Your task to perform on an android device: turn vacation reply on in the gmail app Image 0: 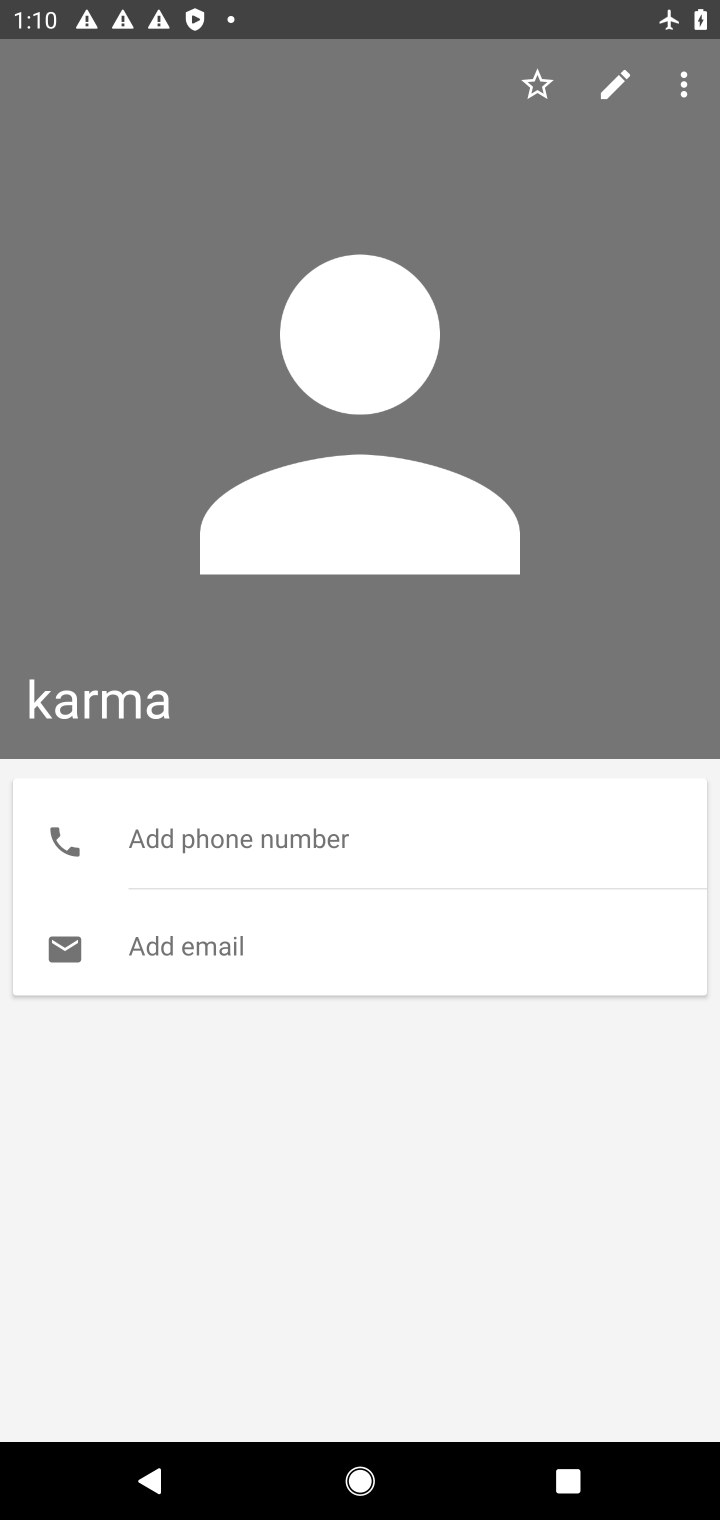
Step 0: press home button
Your task to perform on an android device: turn vacation reply on in the gmail app Image 1: 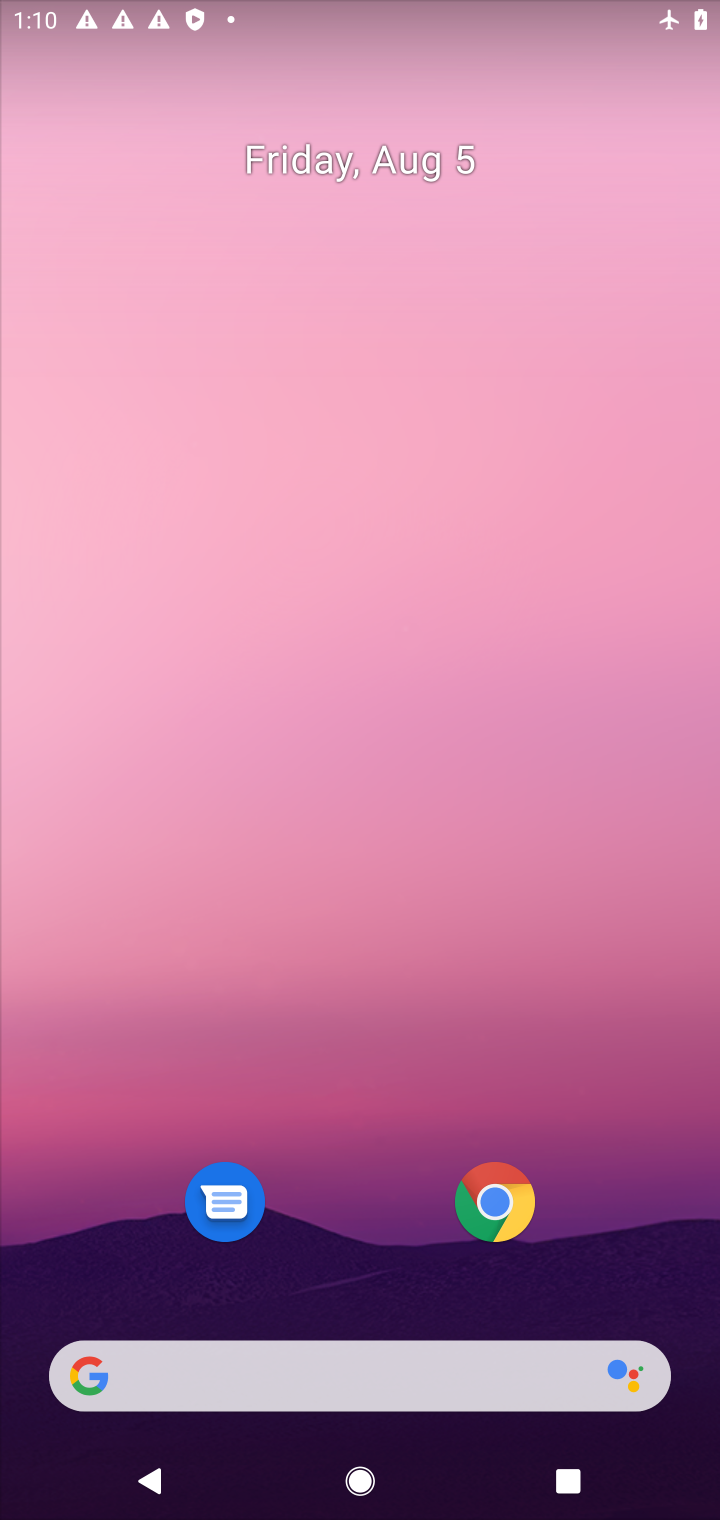
Step 1: drag from (389, 1162) to (387, 305)
Your task to perform on an android device: turn vacation reply on in the gmail app Image 2: 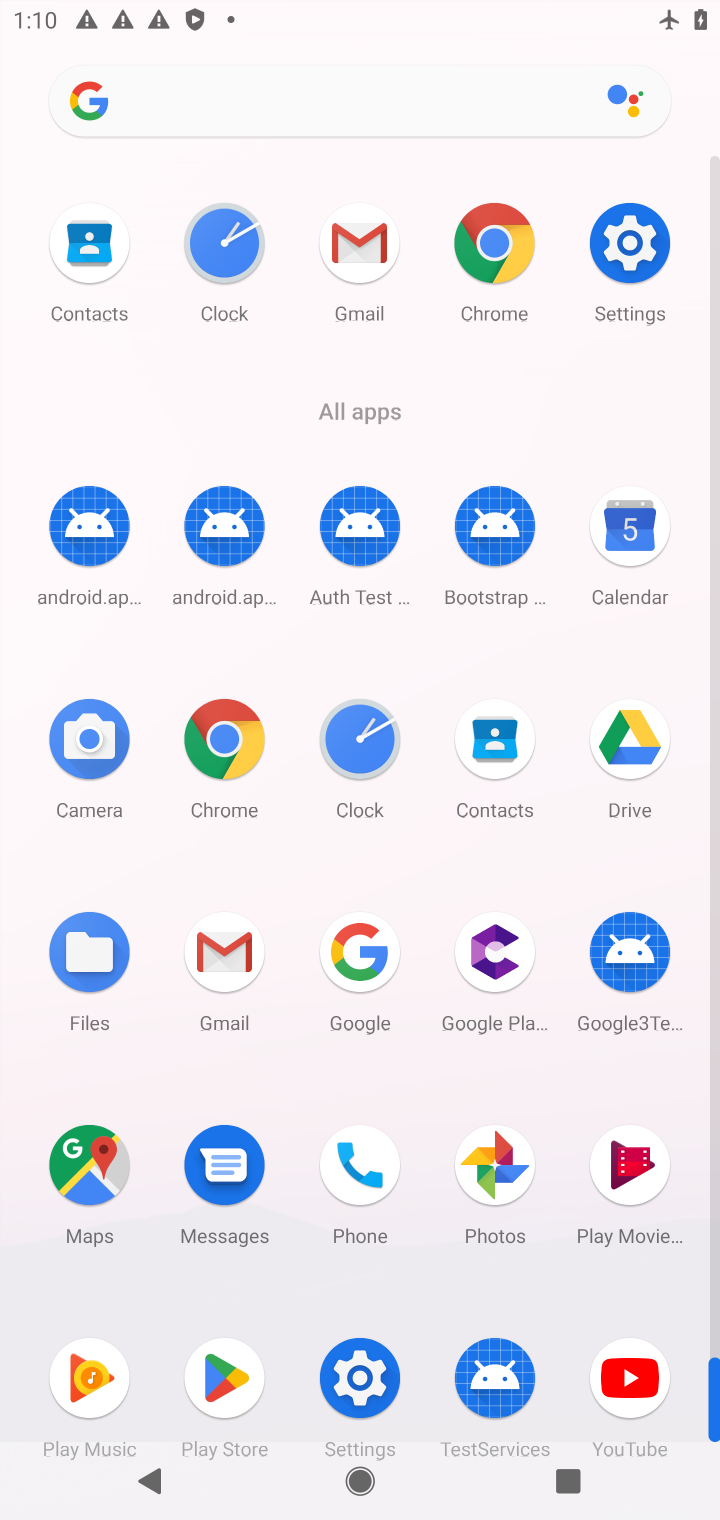
Step 2: click (217, 932)
Your task to perform on an android device: turn vacation reply on in the gmail app Image 3: 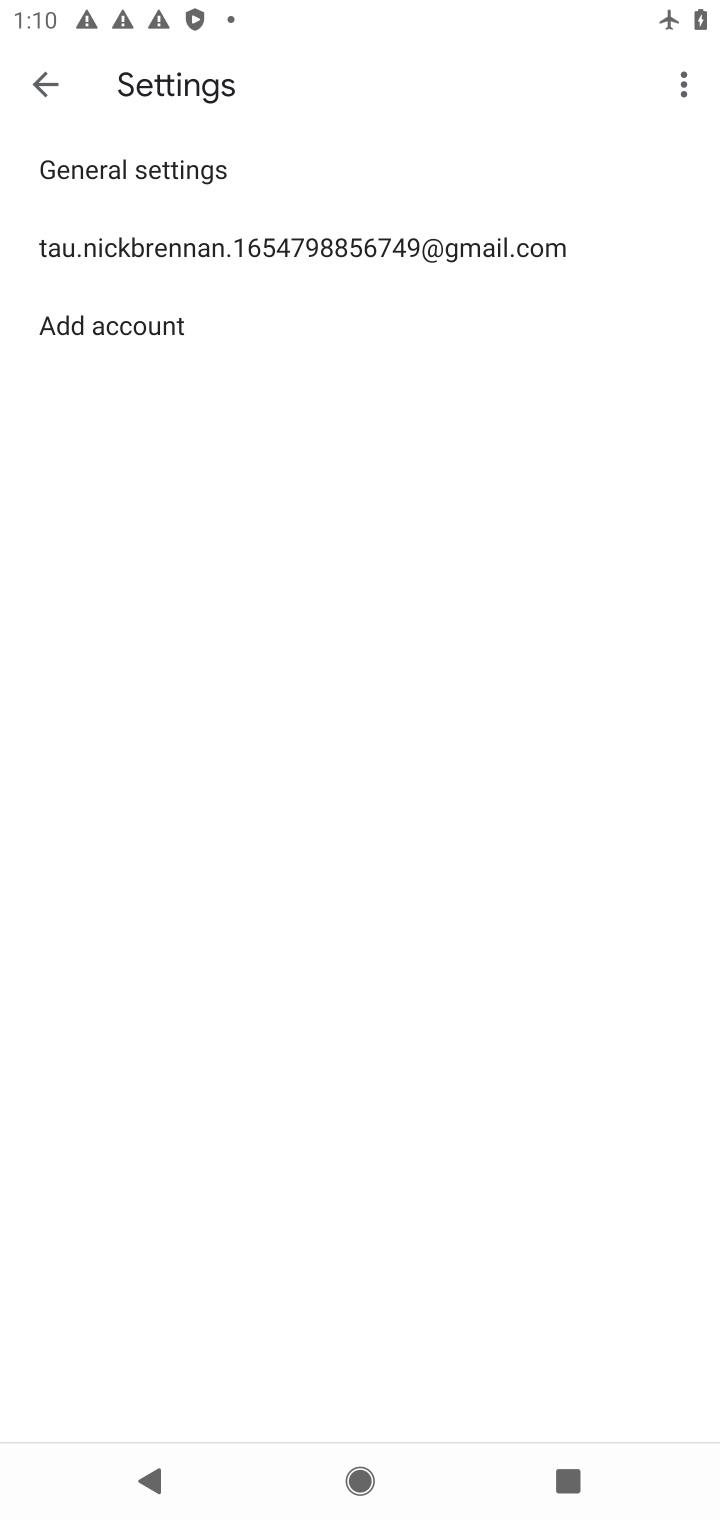
Step 3: click (384, 269)
Your task to perform on an android device: turn vacation reply on in the gmail app Image 4: 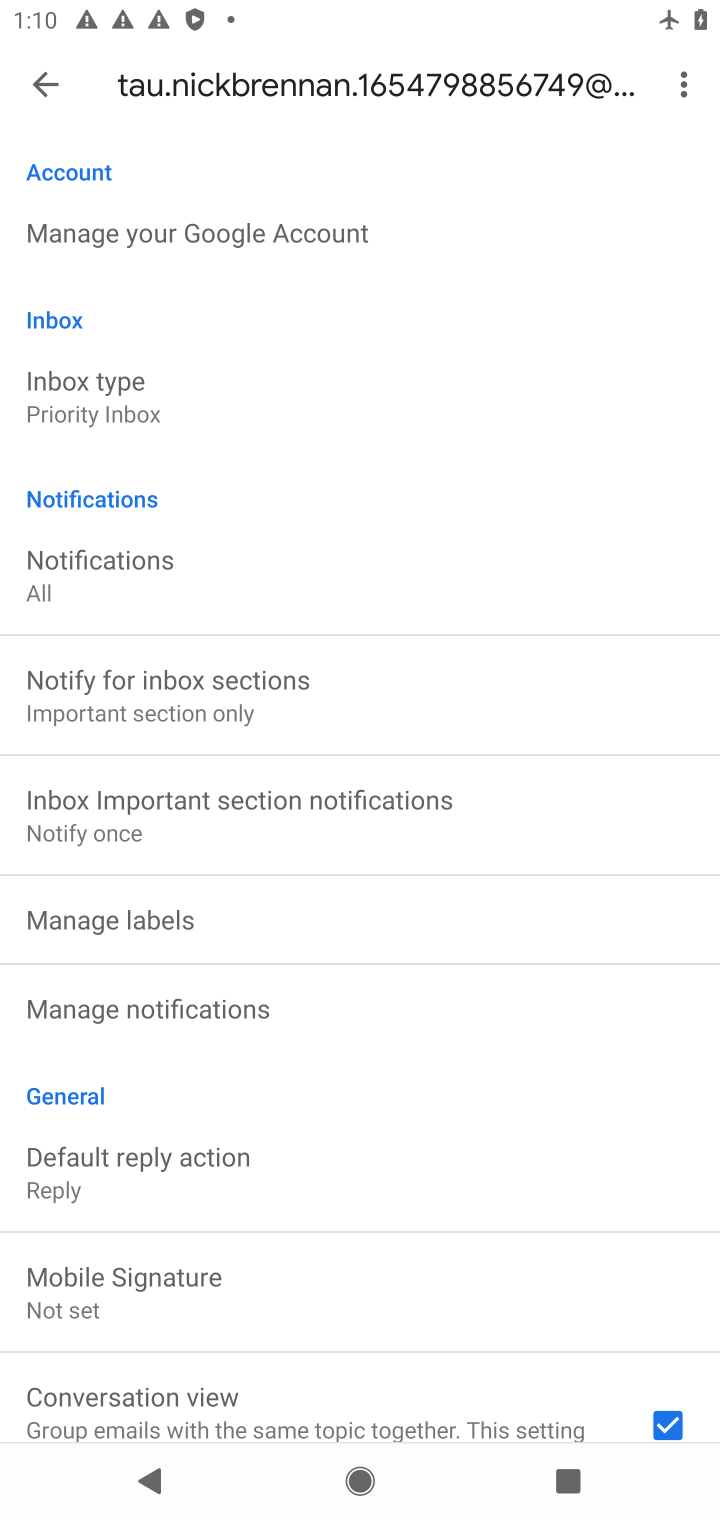
Step 4: drag from (382, 1167) to (449, 222)
Your task to perform on an android device: turn vacation reply on in the gmail app Image 5: 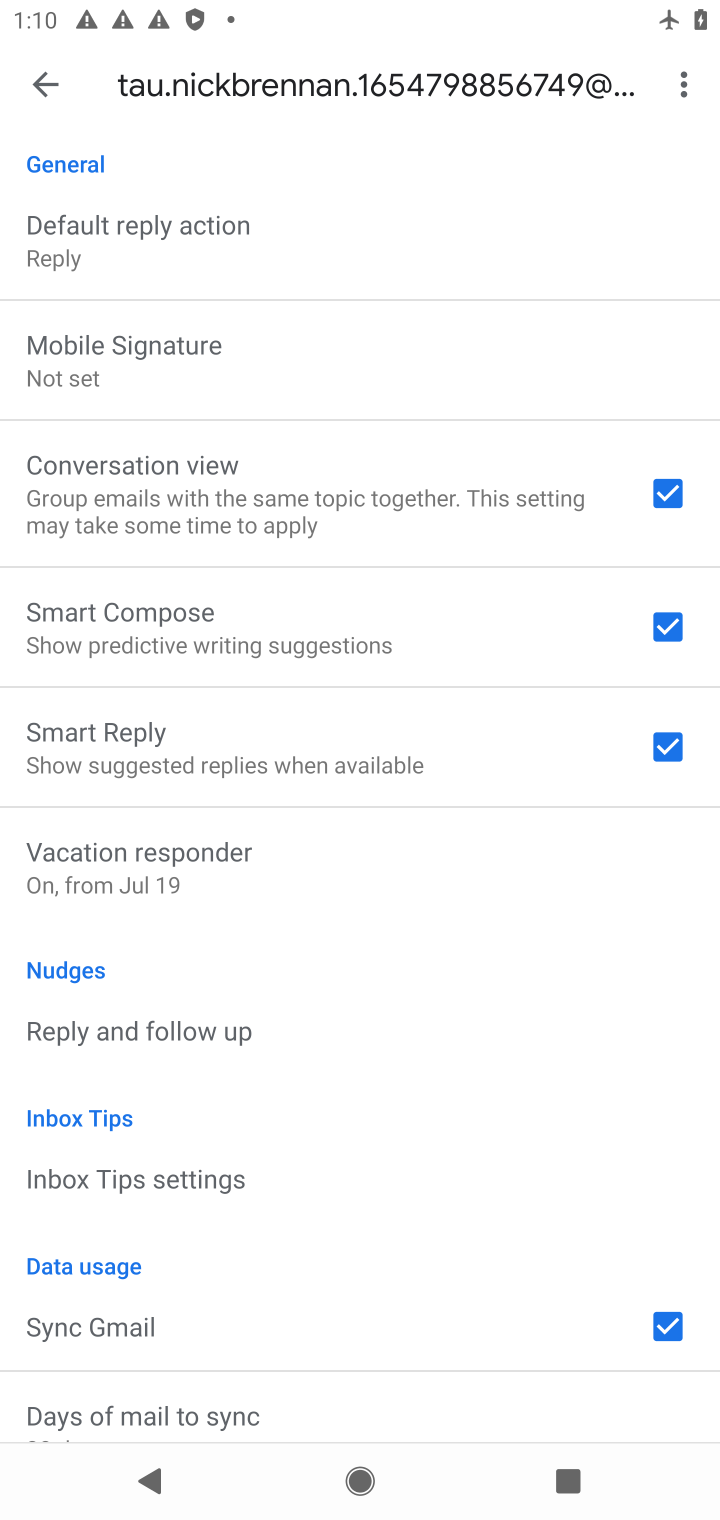
Step 5: click (235, 862)
Your task to perform on an android device: turn vacation reply on in the gmail app Image 6: 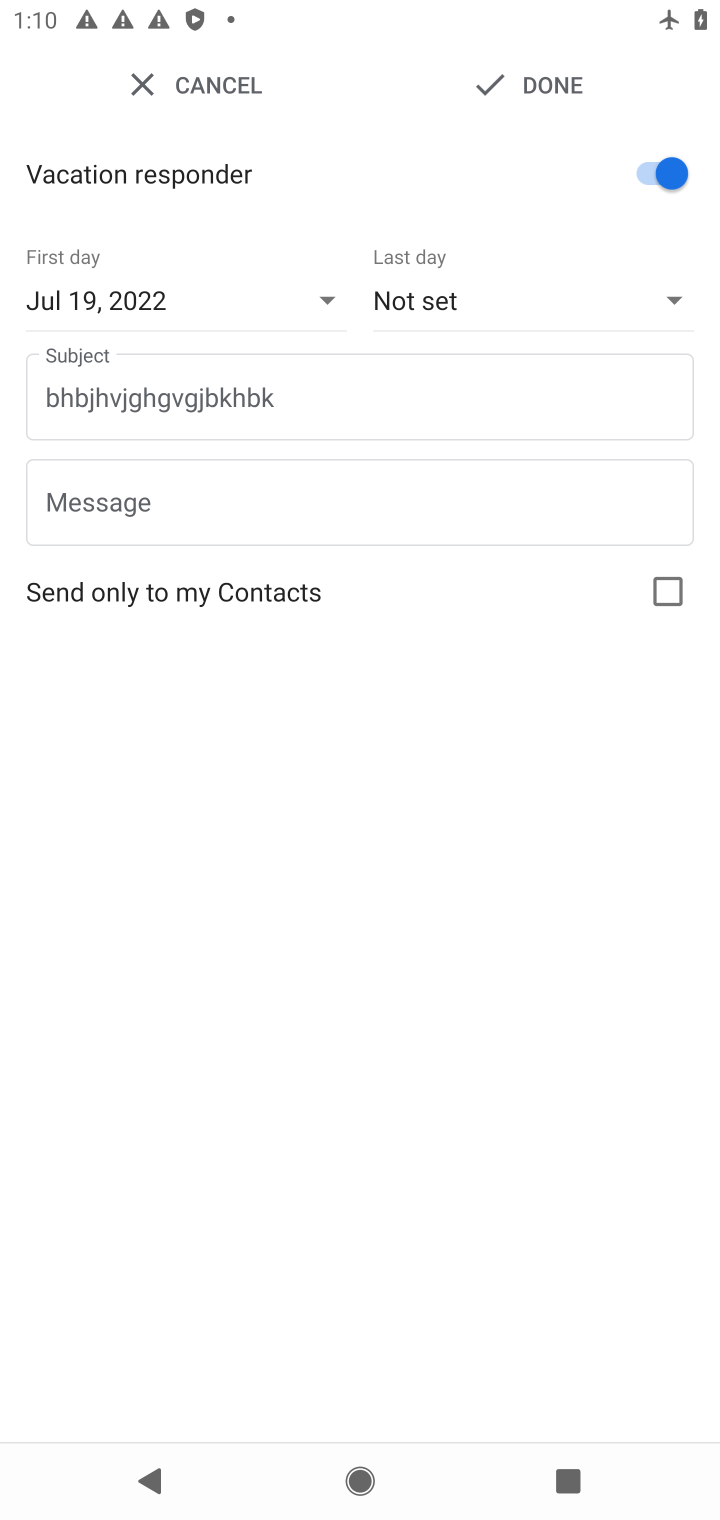
Step 6: task complete